Your task to perform on an android device: Go to Wikipedia Image 0: 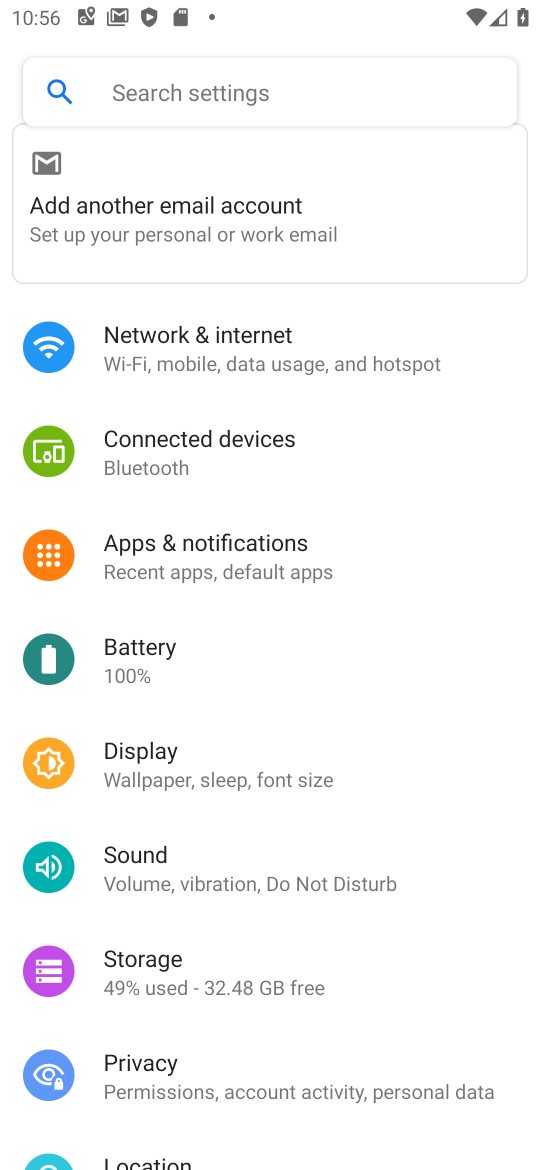
Step 0: press home button
Your task to perform on an android device: Go to Wikipedia Image 1: 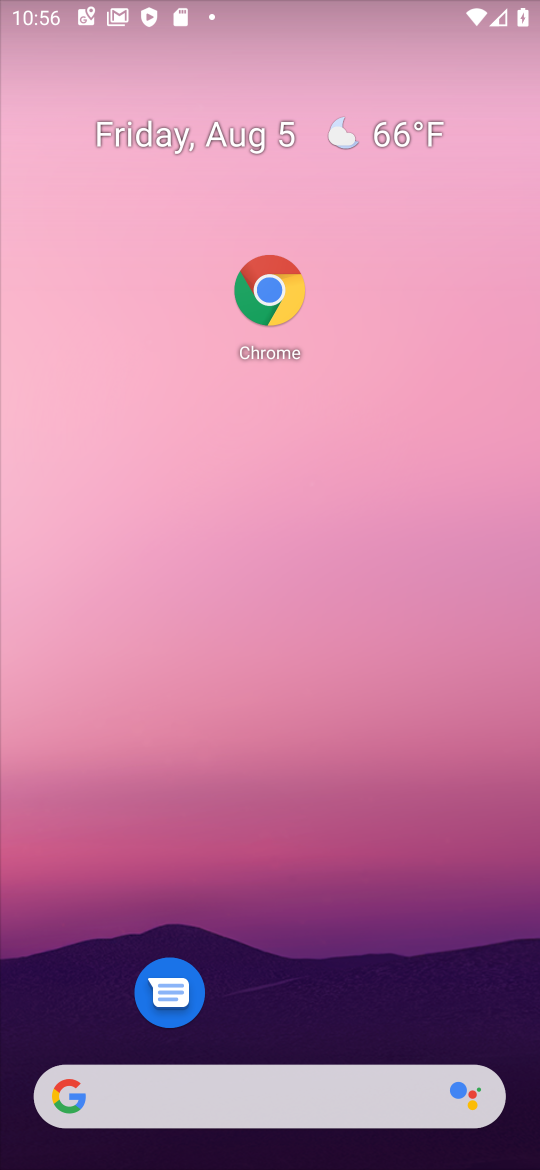
Step 1: drag from (352, 1032) to (213, 25)
Your task to perform on an android device: Go to Wikipedia Image 2: 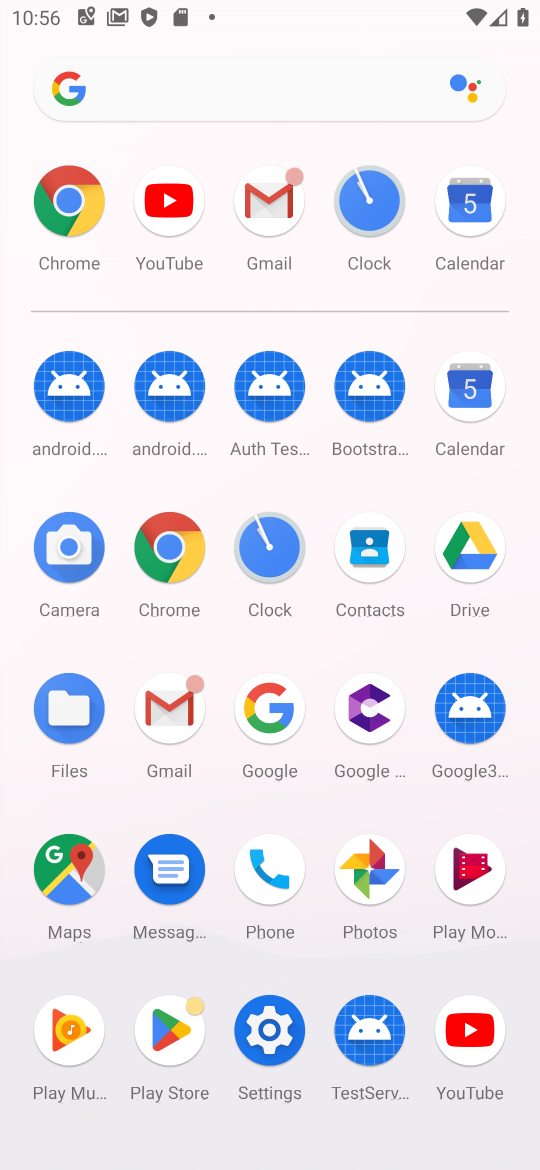
Step 2: click (60, 208)
Your task to perform on an android device: Go to Wikipedia Image 3: 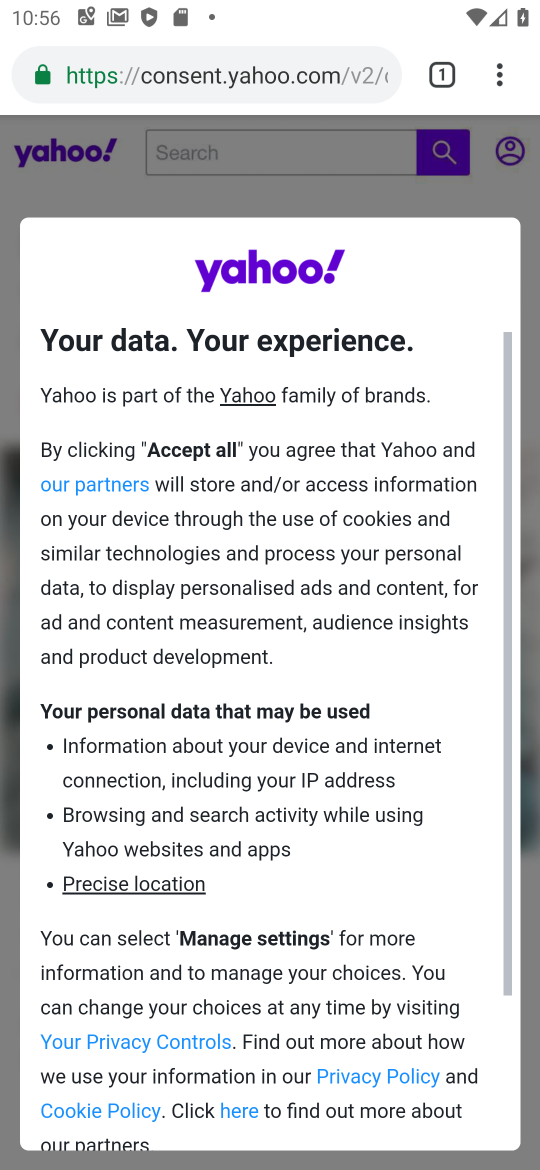
Step 3: click (377, 77)
Your task to perform on an android device: Go to Wikipedia Image 4: 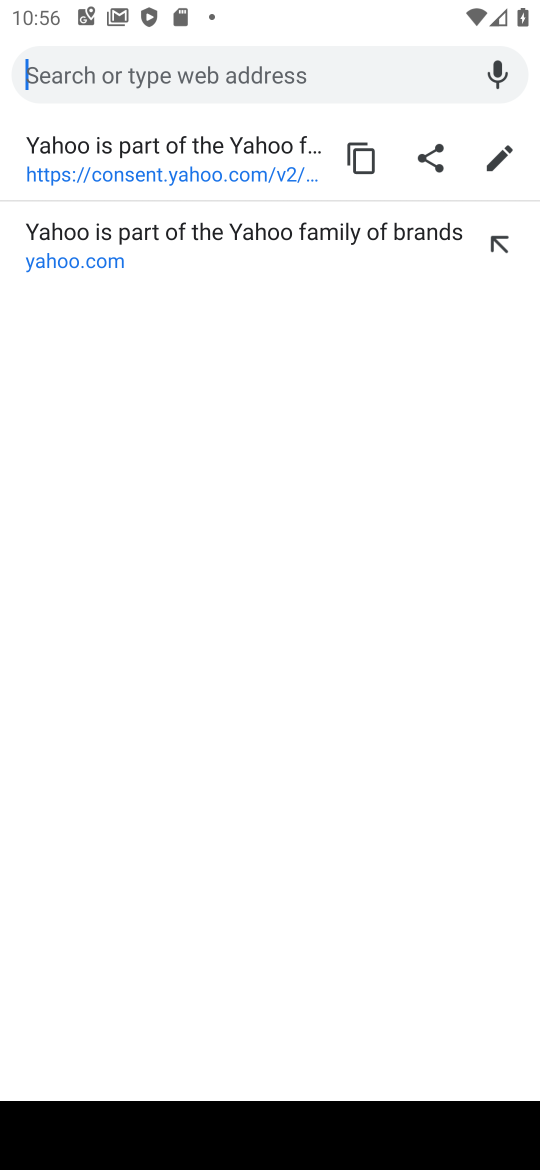
Step 4: type "Wikipedia"
Your task to perform on an android device: Go to Wikipedia Image 5: 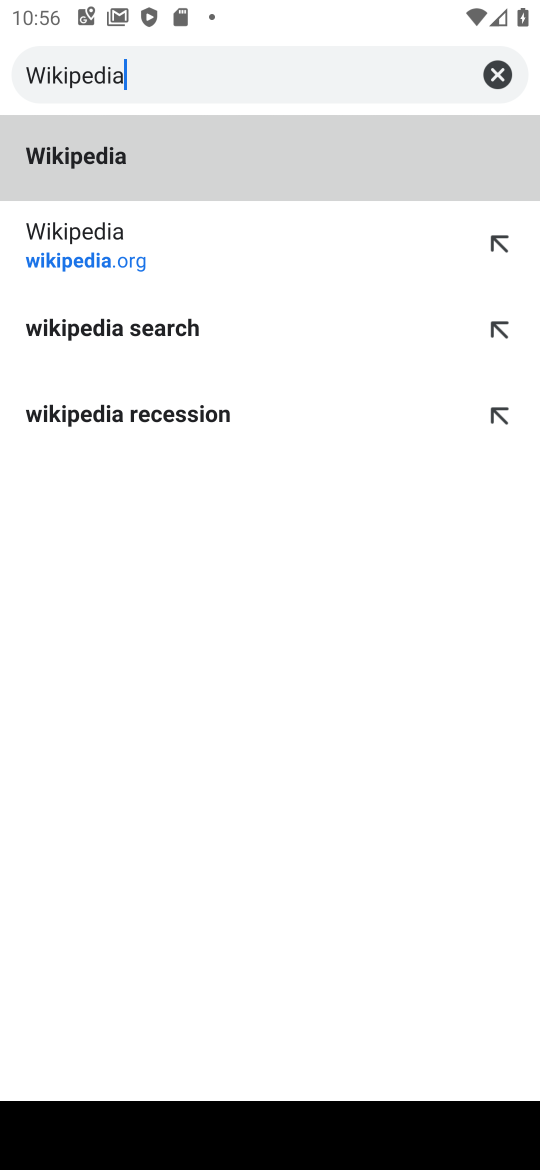
Step 5: click (89, 187)
Your task to perform on an android device: Go to Wikipedia Image 6: 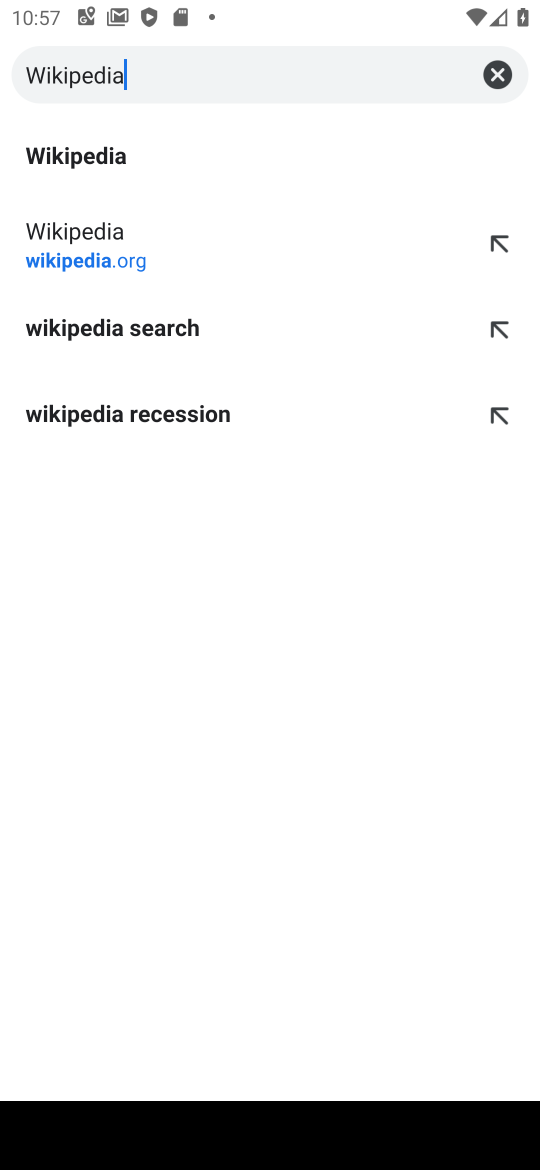
Step 6: click (88, 156)
Your task to perform on an android device: Go to Wikipedia Image 7: 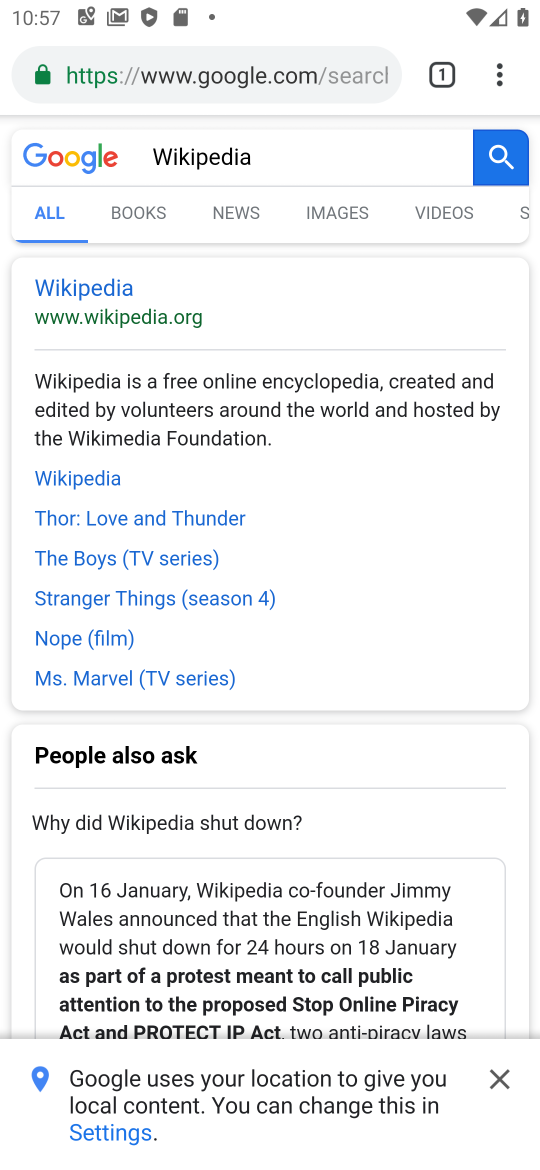
Step 7: click (89, 318)
Your task to perform on an android device: Go to Wikipedia Image 8: 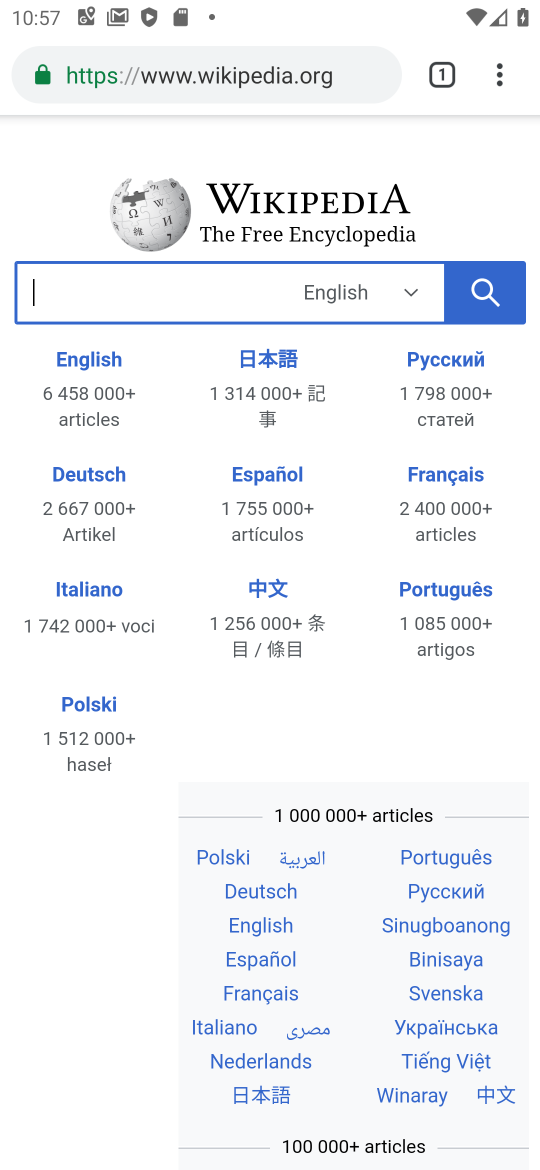
Step 8: task complete